Your task to perform on an android device: turn off notifications settings in the gmail app Image 0: 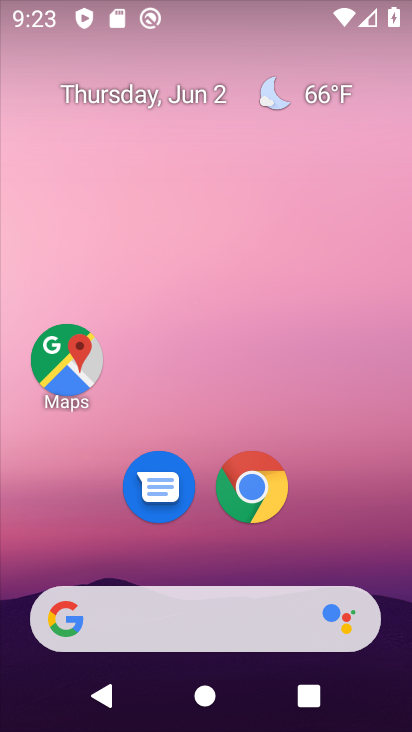
Step 0: click (143, 145)
Your task to perform on an android device: turn off notifications settings in the gmail app Image 1: 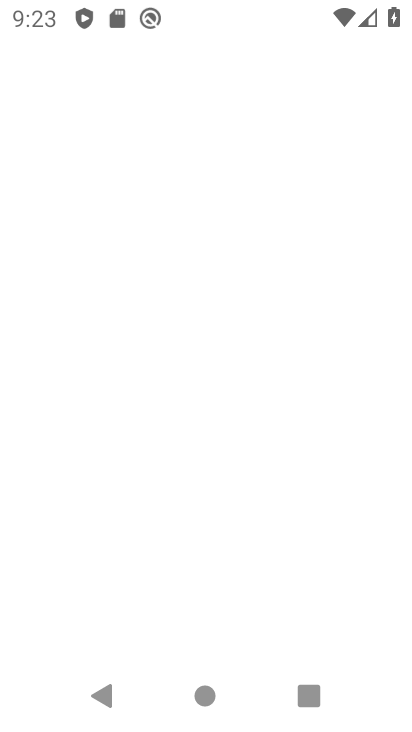
Step 1: press home button
Your task to perform on an android device: turn off notifications settings in the gmail app Image 2: 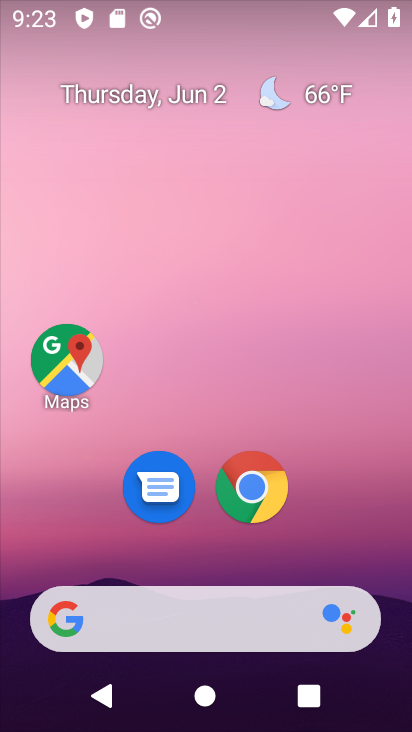
Step 2: drag from (229, 723) to (201, 136)
Your task to perform on an android device: turn off notifications settings in the gmail app Image 3: 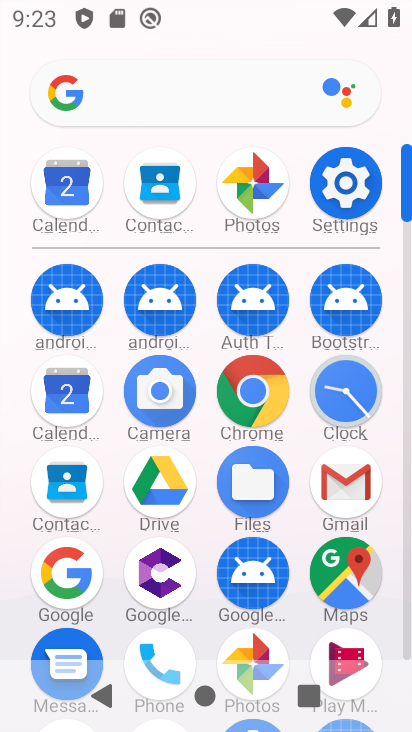
Step 3: click (349, 484)
Your task to perform on an android device: turn off notifications settings in the gmail app Image 4: 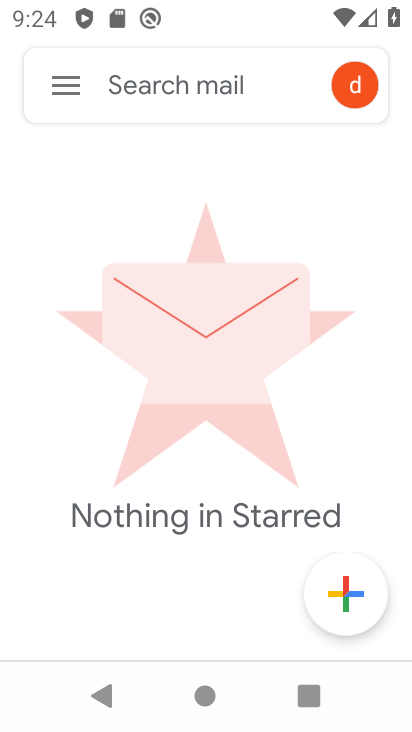
Step 4: click (65, 94)
Your task to perform on an android device: turn off notifications settings in the gmail app Image 5: 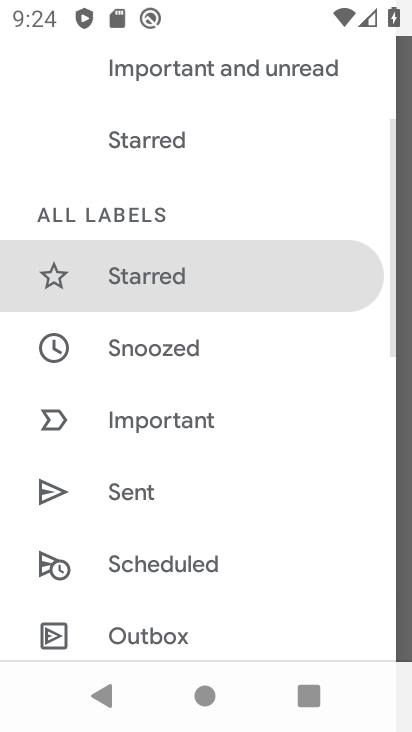
Step 5: drag from (171, 625) to (181, 285)
Your task to perform on an android device: turn off notifications settings in the gmail app Image 6: 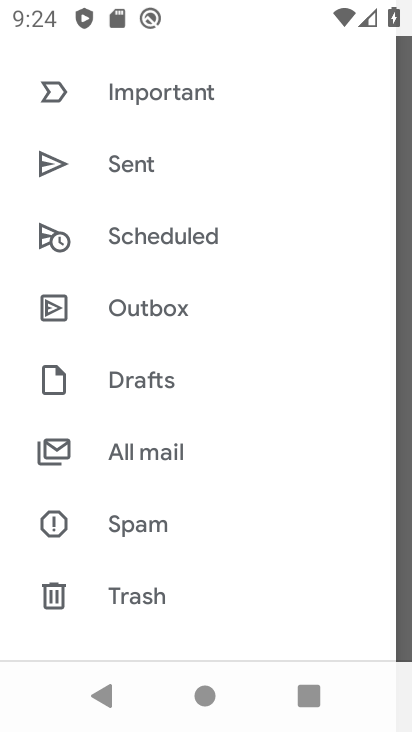
Step 6: drag from (156, 637) to (167, 223)
Your task to perform on an android device: turn off notifications settings in the gmail app Image 7: 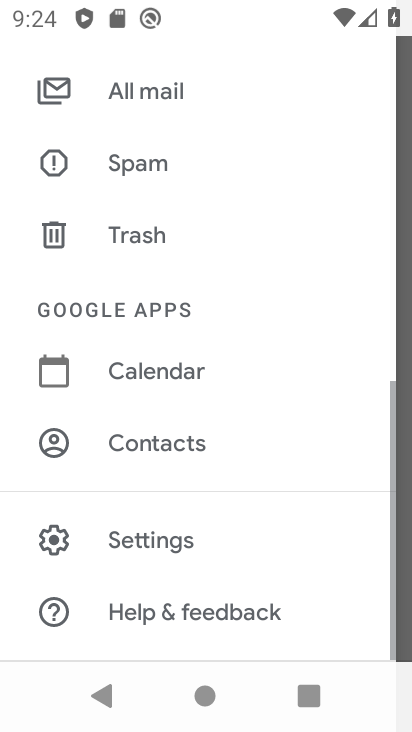
Step 7: click (142, 536)
Your task to perform on an android device: turn off notifications settings in the gmail app Image 8: 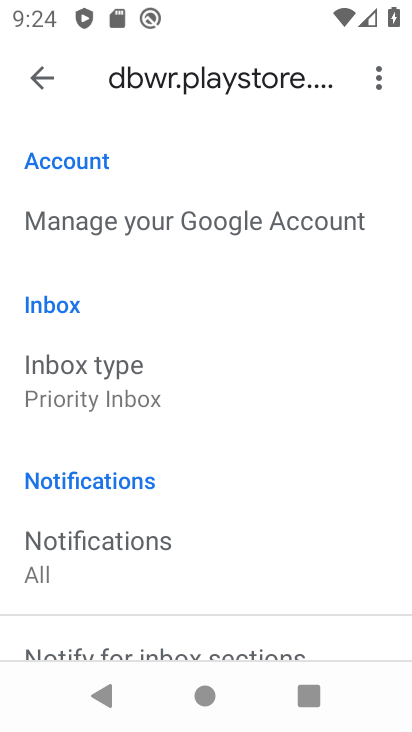
Step 8: click (134, 546)
Your task to perform on an android device: turn off notifications settings in the gmail app Image 9: 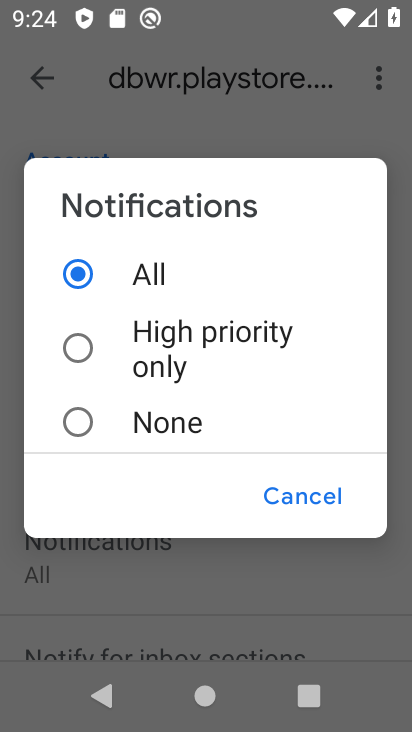
Step 9: click (81, 422)
Your task to perform on an android device: turn off notifications settings in the gmail app Image 10: 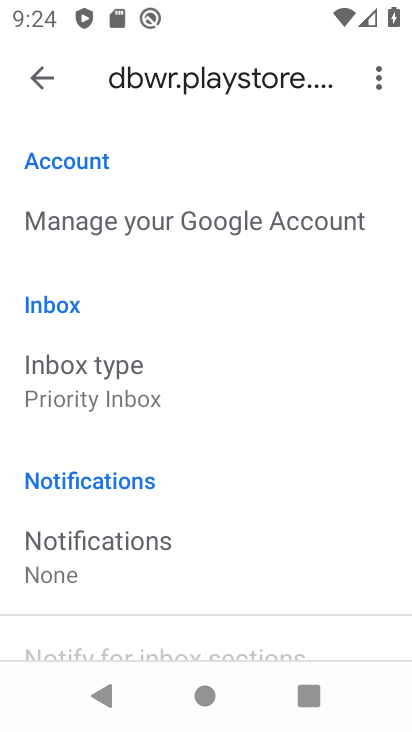
Step 10: task complete